Your task to perform on an android device: What's the weather going to be tomorrow? Image 0: 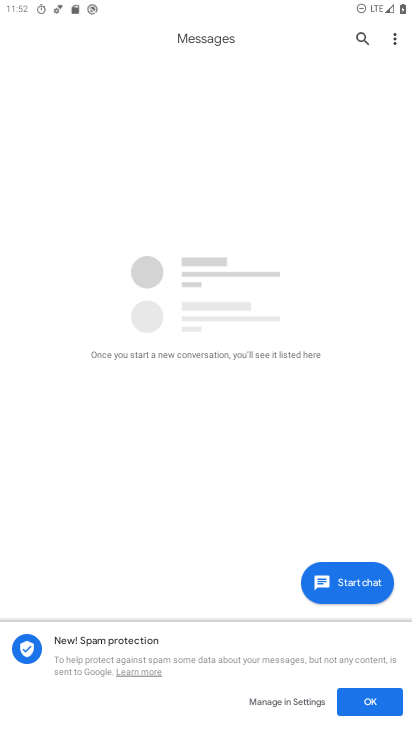
Step 0: press home button
Your task to perform on an android device: What's the weather going to be tomorrow? Image 1: 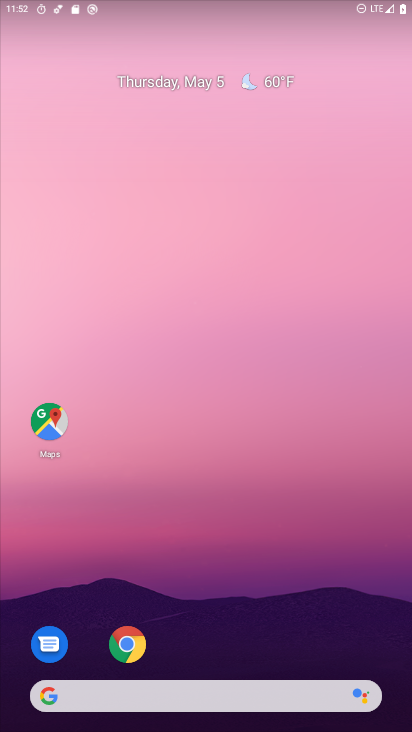
Step 1: drag from (364, 641) to (269, 93)
Your task to perform on an android device: What's the weather going to be tomorrow? Image 2: 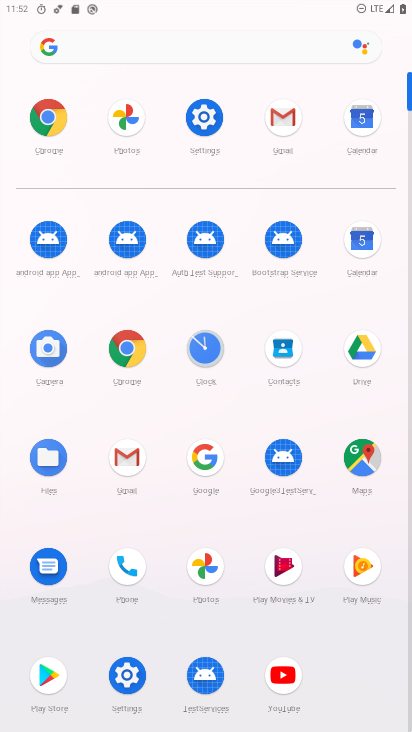
Step 2: click (45, 114)
Your task to perform on an android device: What's the weather going to be tomorrow? Image 3: 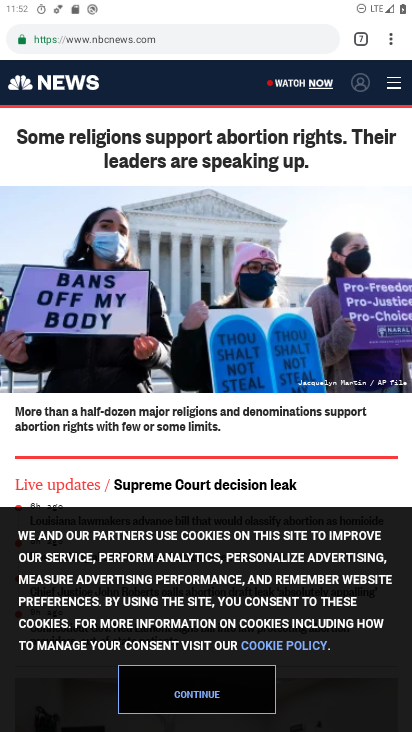
Step 3: click (167, 36)
Your task to perform on an android device: What's the weather going to be tomorrow? Image 4: 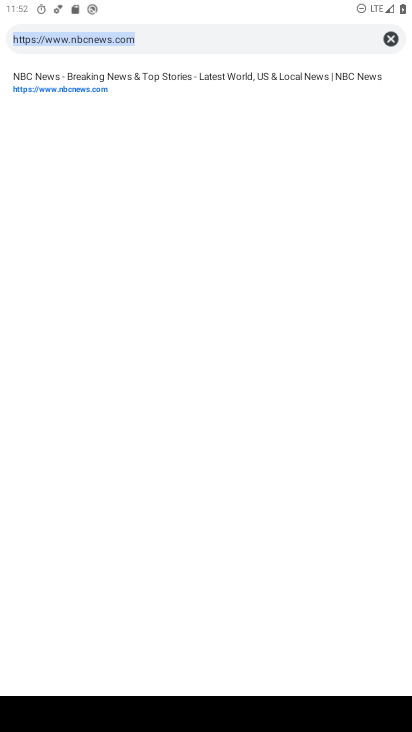
Step 4: click (388, 40)
Your task to perform on an android device: What's the weather going to be tomorrow? Image 5: 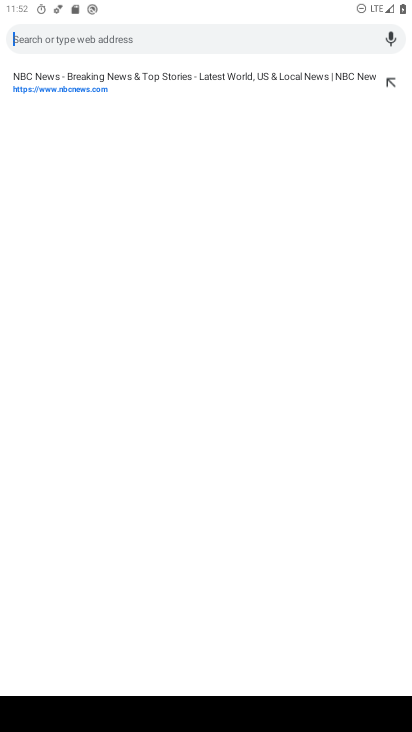
Step 5: type "what's the weather going to be tomorrow"
Your task to perform on an android device: What's the weather going to be tomorrow? Image 6: 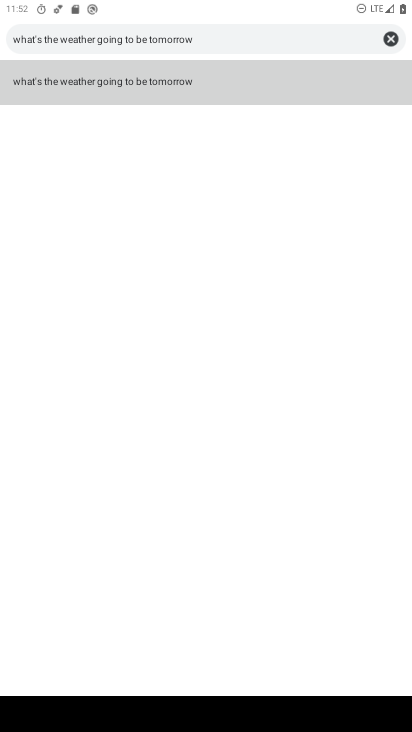
Step 6: click (176, 88)
Your task to perform on an android device: What's the weather going to be tomorrow? Image 7: 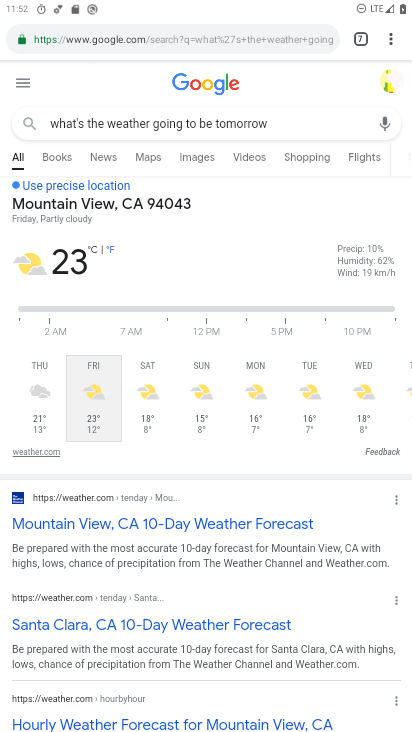
Step 7: task complete